Your task to perform on an android device: Clear the cart on amazon. Add "razer deathadder" to the cart on amazon Image 0: 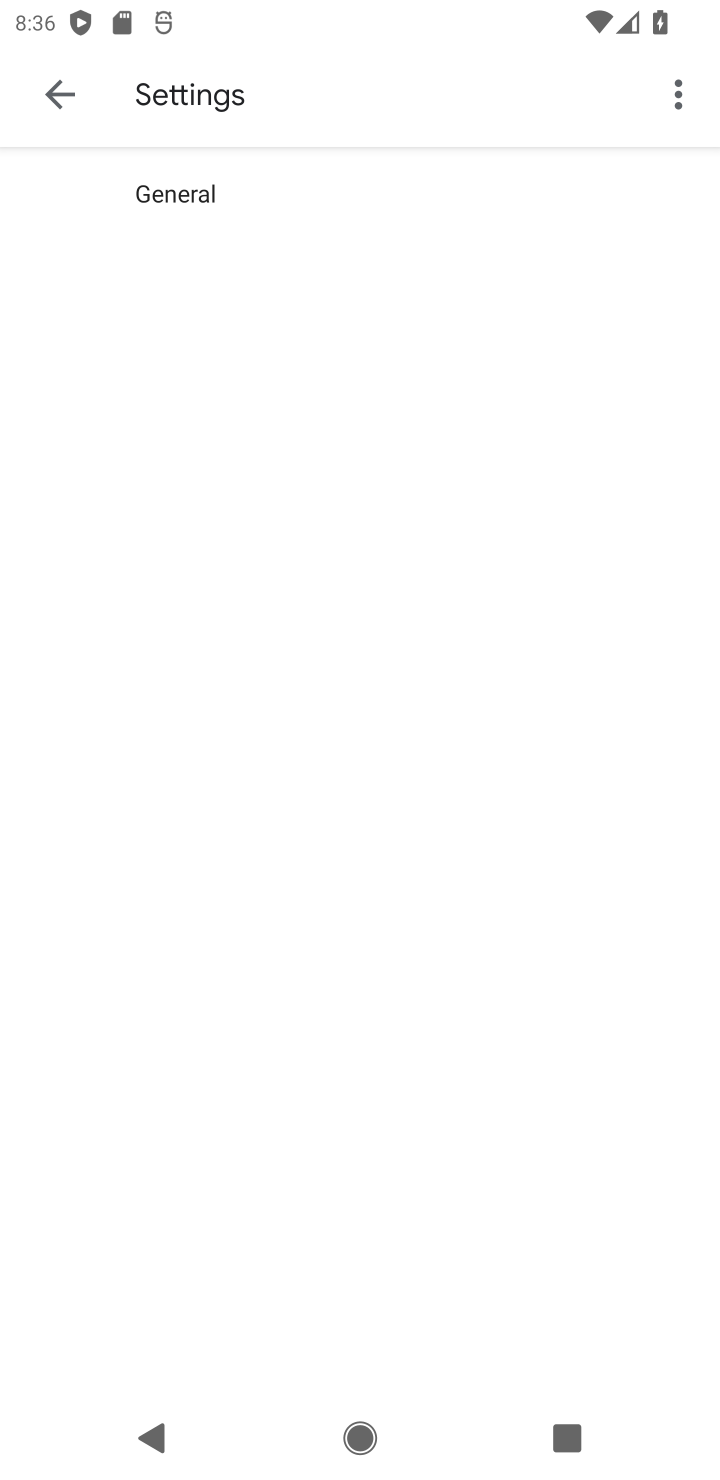
Step 0: press home button
Your task to perform on an android device: Clear the cart on amazon. Add "razer deathadder" to the cart on amazon Image 1: 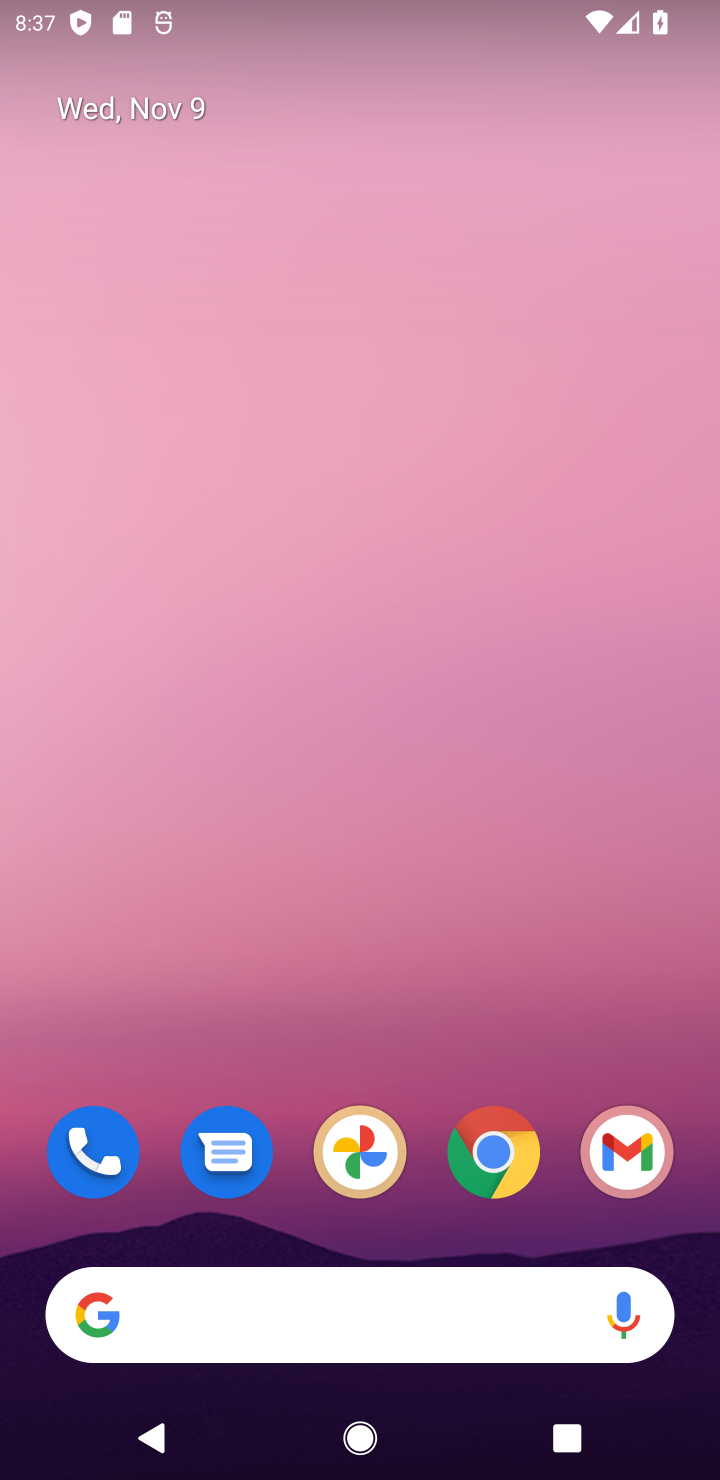
Step 1: click (509, 1143)
Your task to perform on an android device: Clear the cart on amazon. Add "razer deathadder" to the cart on amazon Image 2: 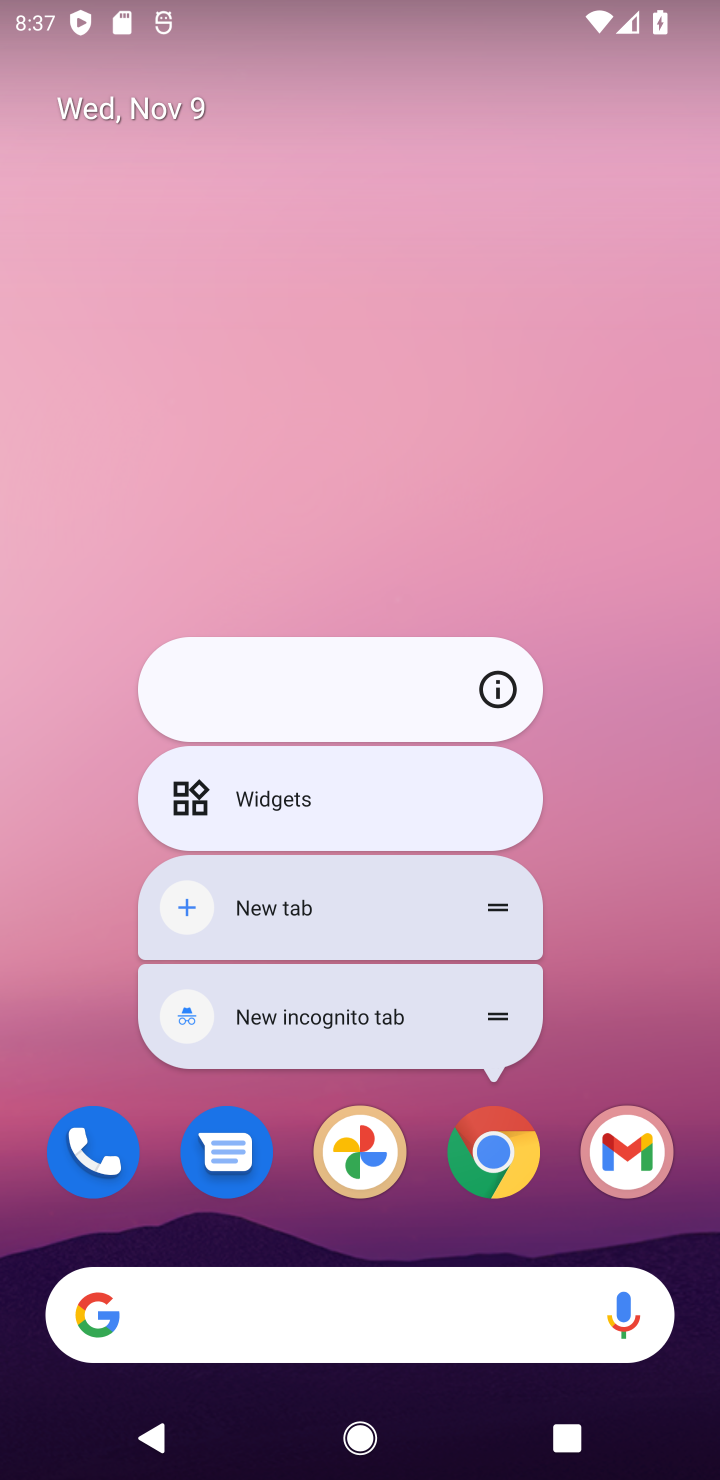
Step 2: click (498, 1145)
Your task to perform on an android device: Clear the cart on amazon. Add "razer deathadder" to the cart on amazon Image 3: 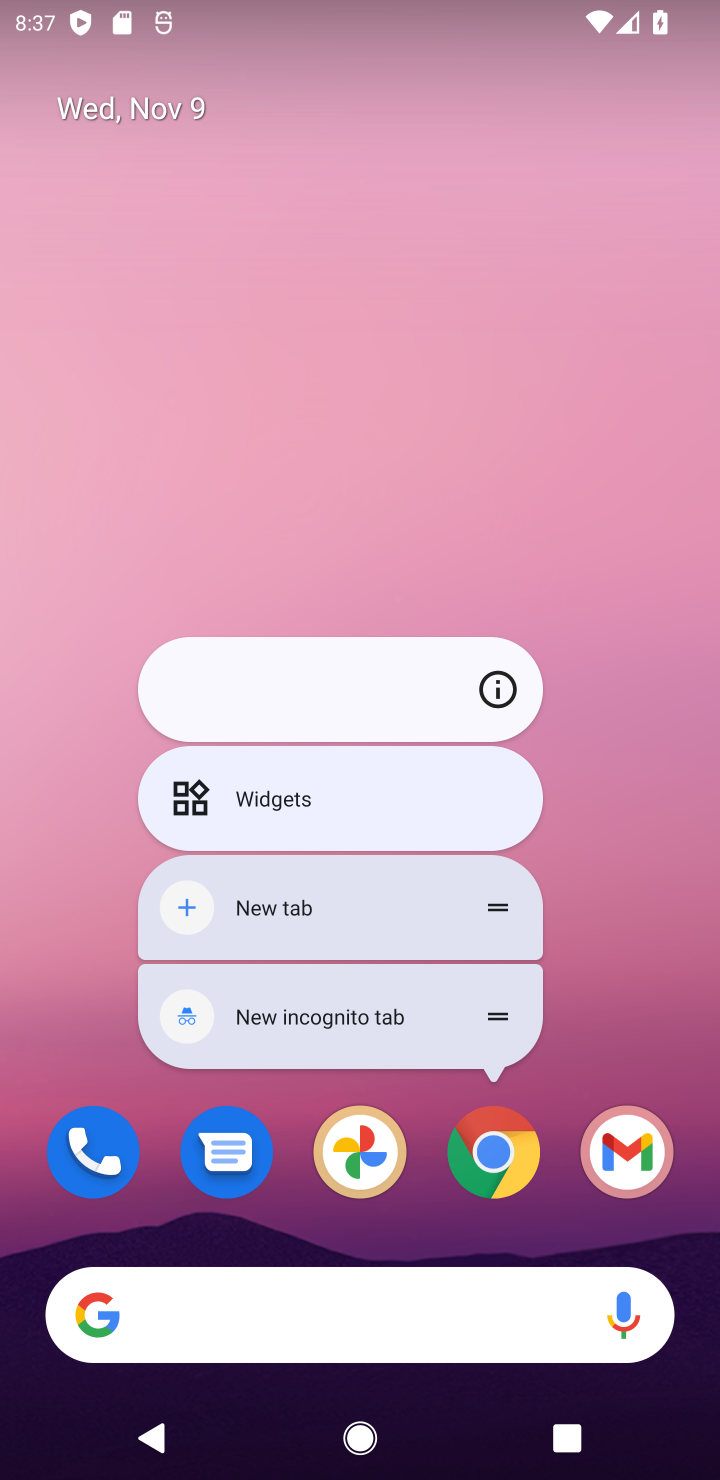
Step 3: click (498, 1147)
Your task to perform on an android device: Clear the cart on amazon. Add "razer deathadder" to the cart on amazon Image 4: 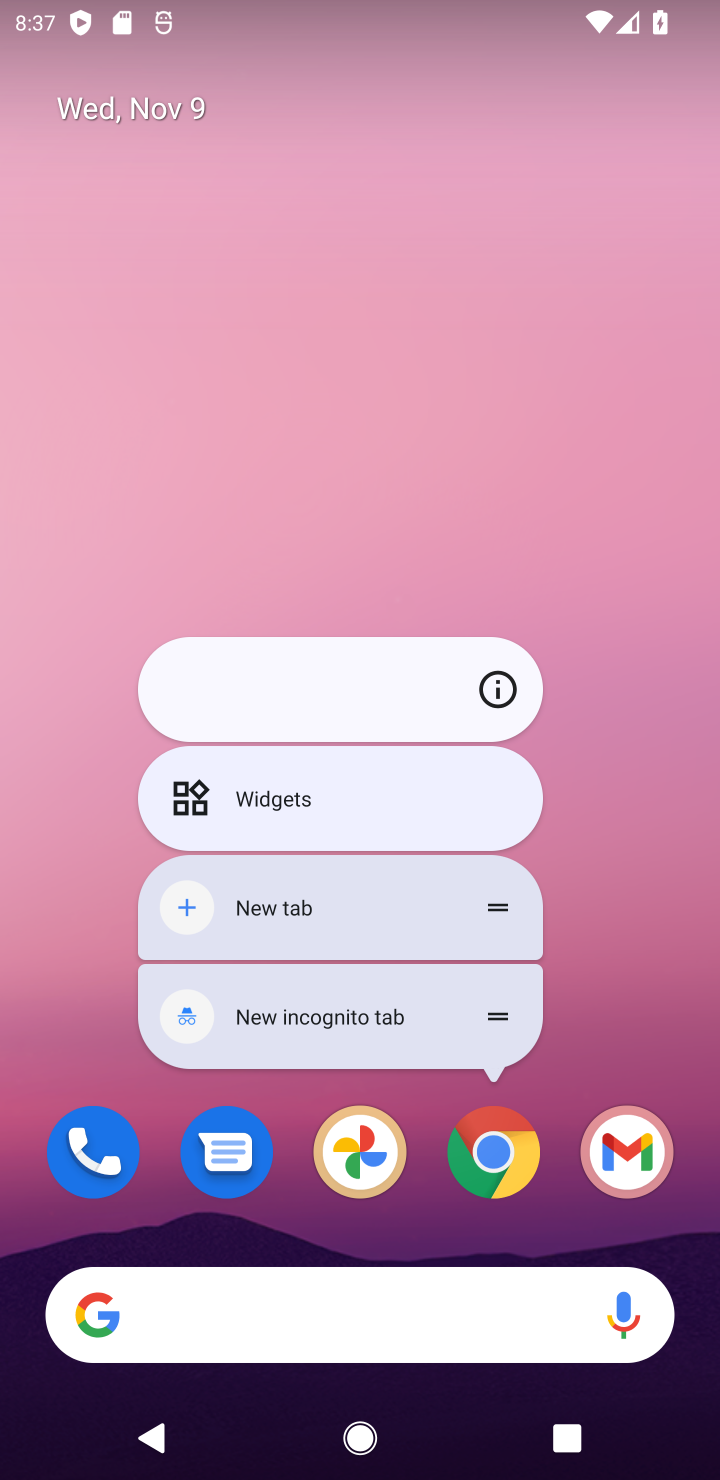
Step 4: click (494, 1146)
Your task to perform on an android device: Clear the cart on amazon. Add "razer deathadder" to the cart on amazon Image 5: 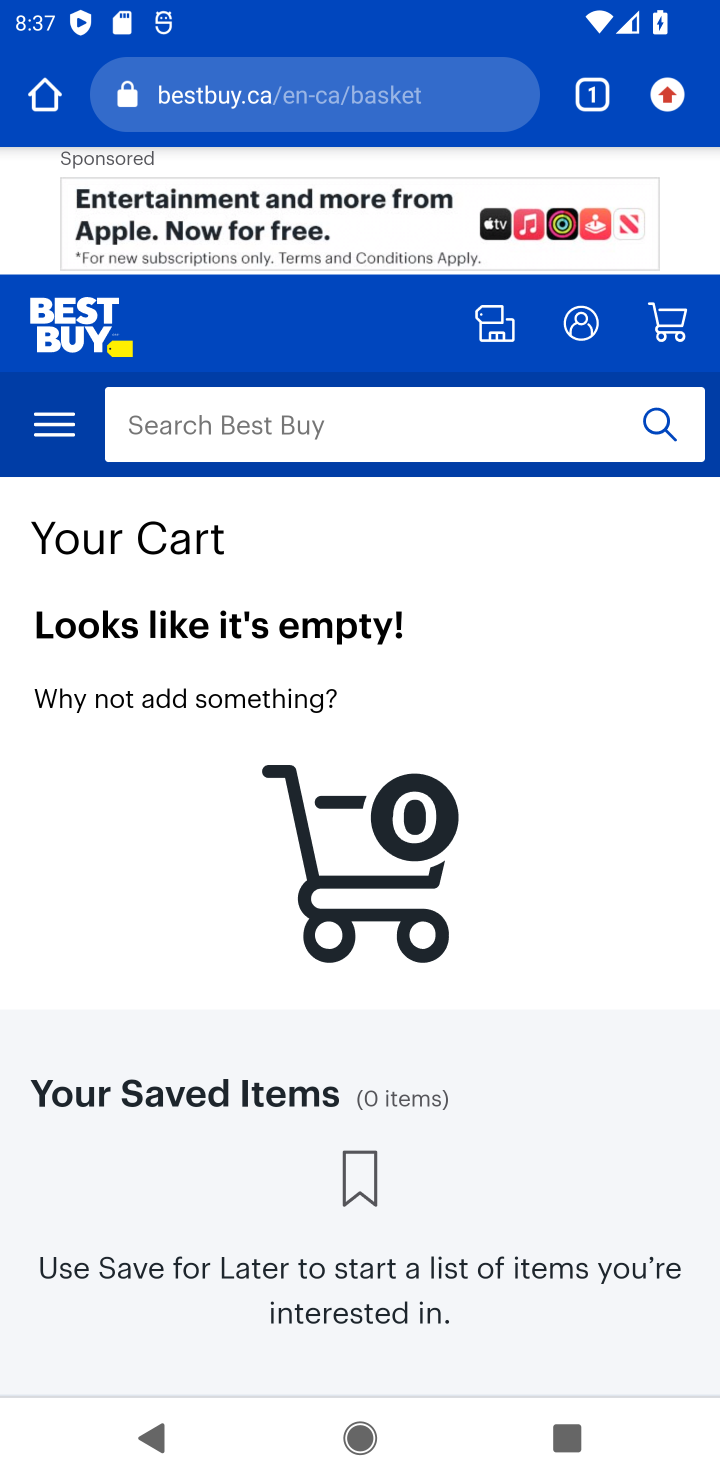
Step 5: click (294, 92)
Your task to perform on an android device: Clear the cart on amazon. Add "razer deathadder" to the cart on amazon Image 6: 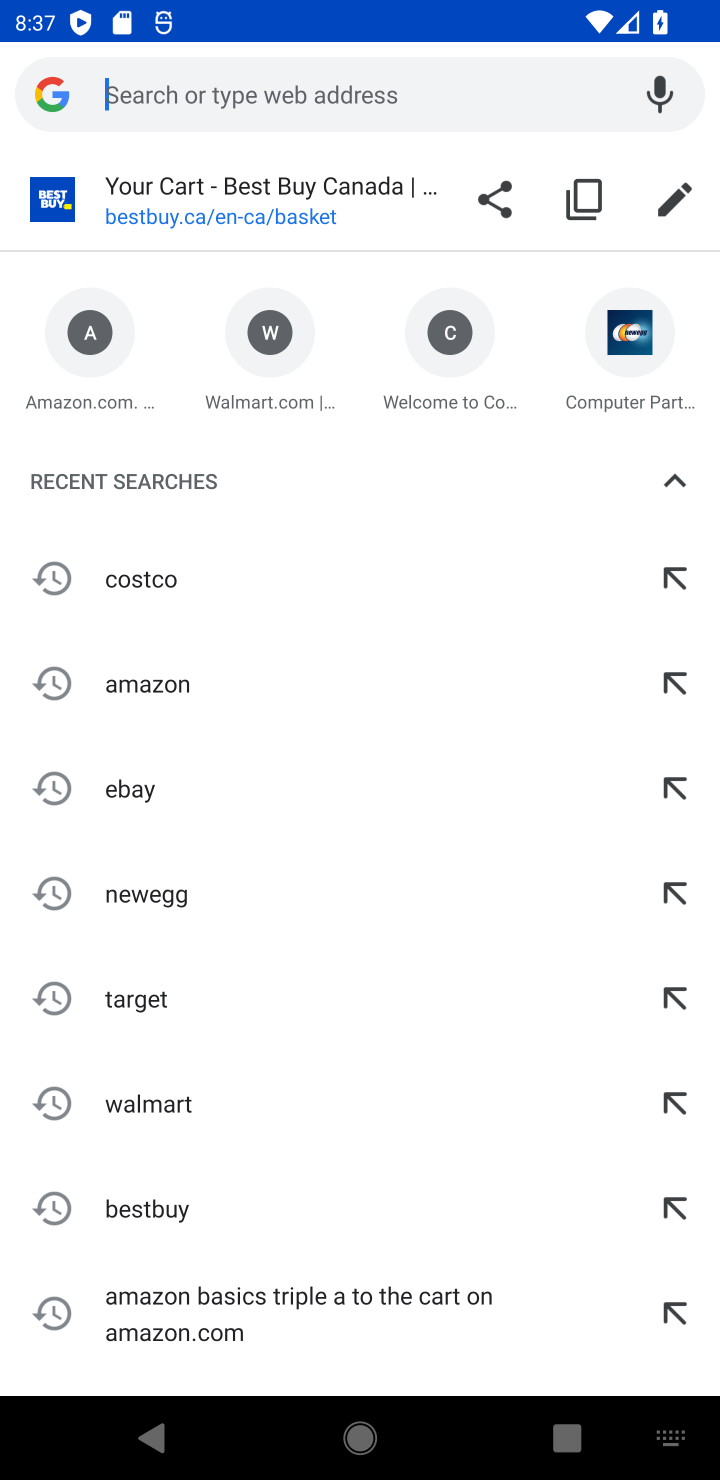
Step 6: type "amazon"
Your task to perform on an android device: Clear the cart on amazon. Add "razer deathadder" to the cart on amazon Image 7: 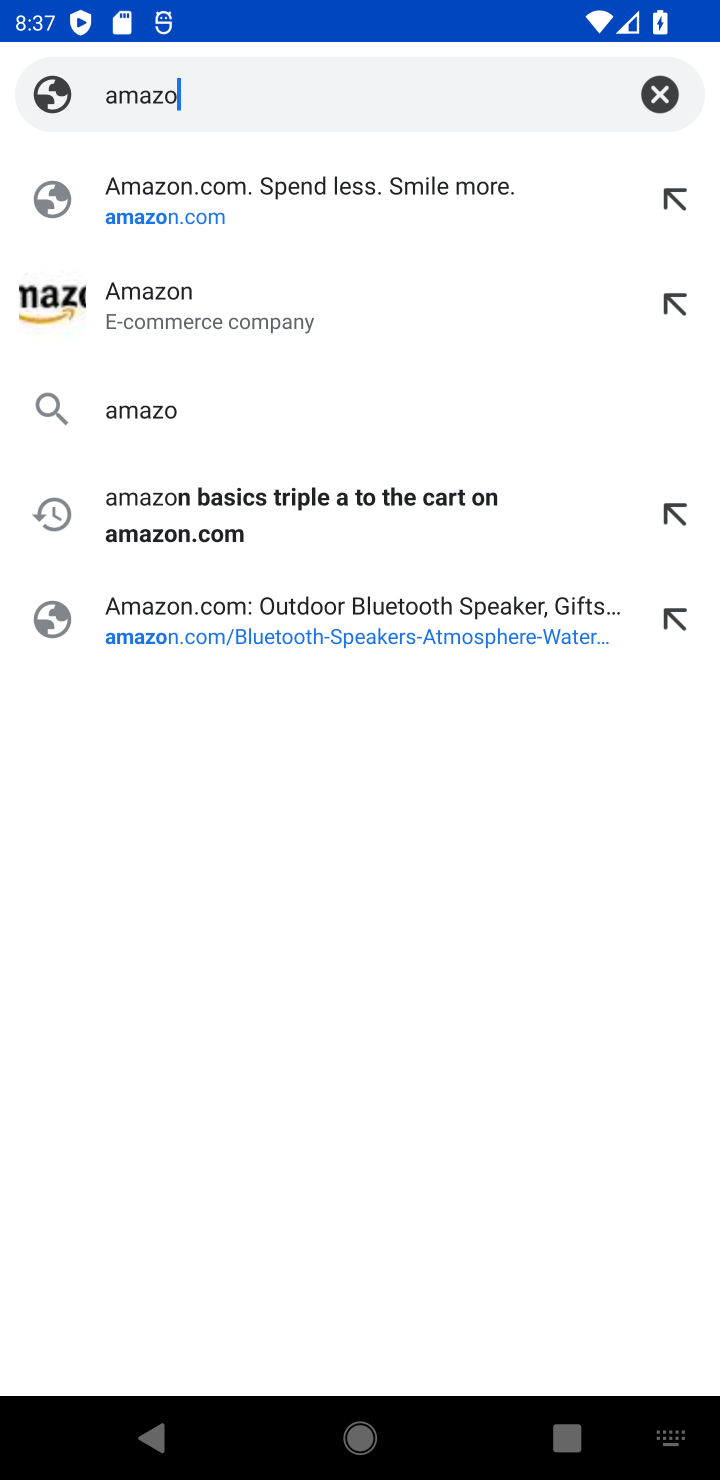
Step 7: press enter
Your task to perform on an android device: Clear the cart on amazon. Add "razer deathadder" to the cart on amazon Image 8: 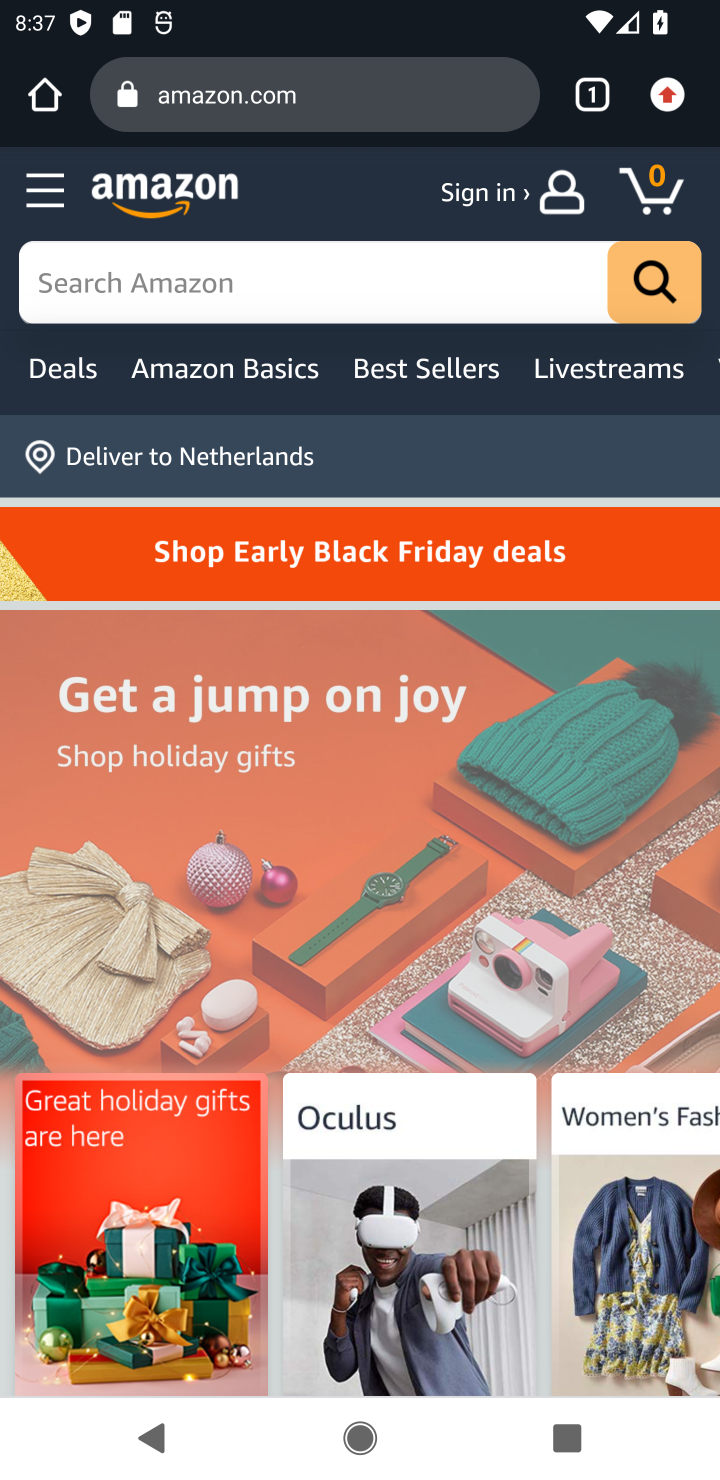
Step 8: click (215, 277)
Your task to perform on an android device: Clear the cart on amazon. Add "razer deathadder" to the cart on amazon Image 9: 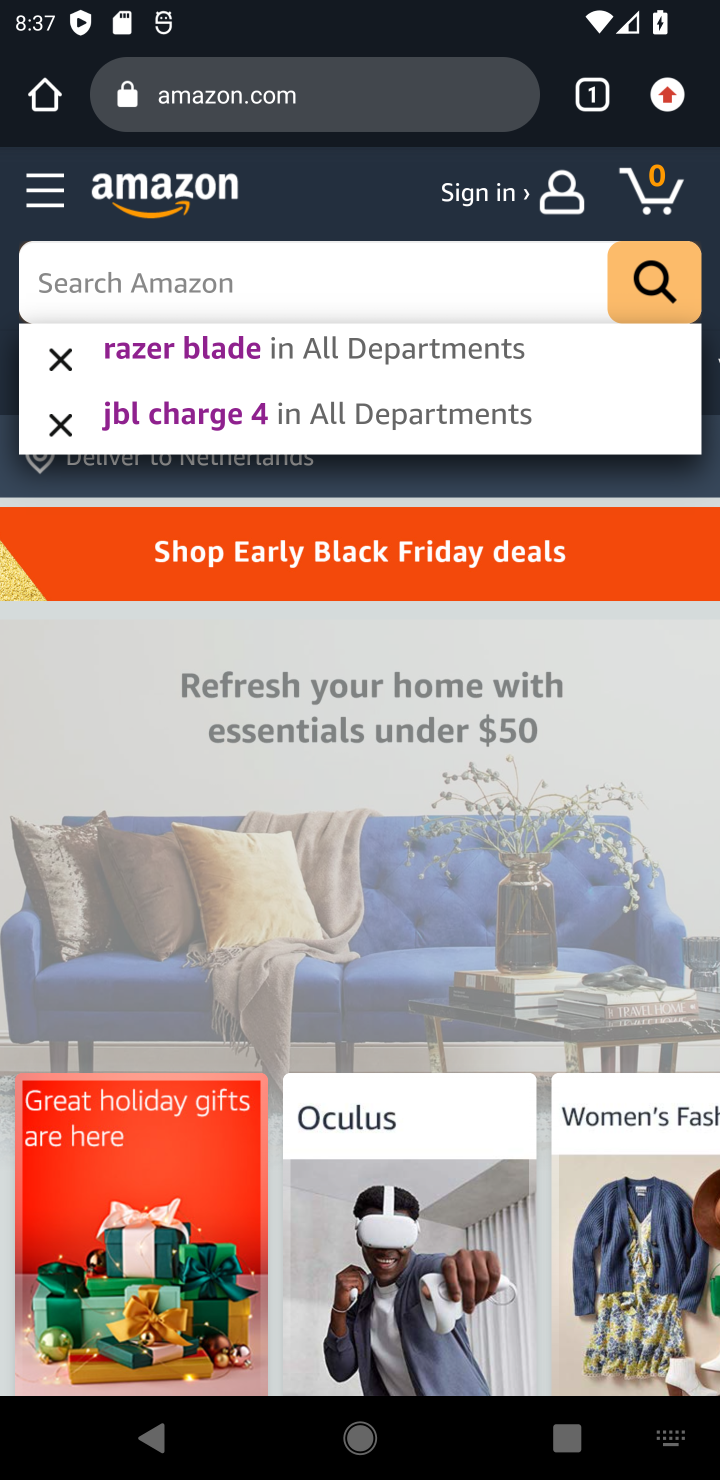
Step 9: click (90, 277)
Your task to perform on an android device: Clear the cart on amazon. Add "razer deathadder" to the cart on amazon Image 10: 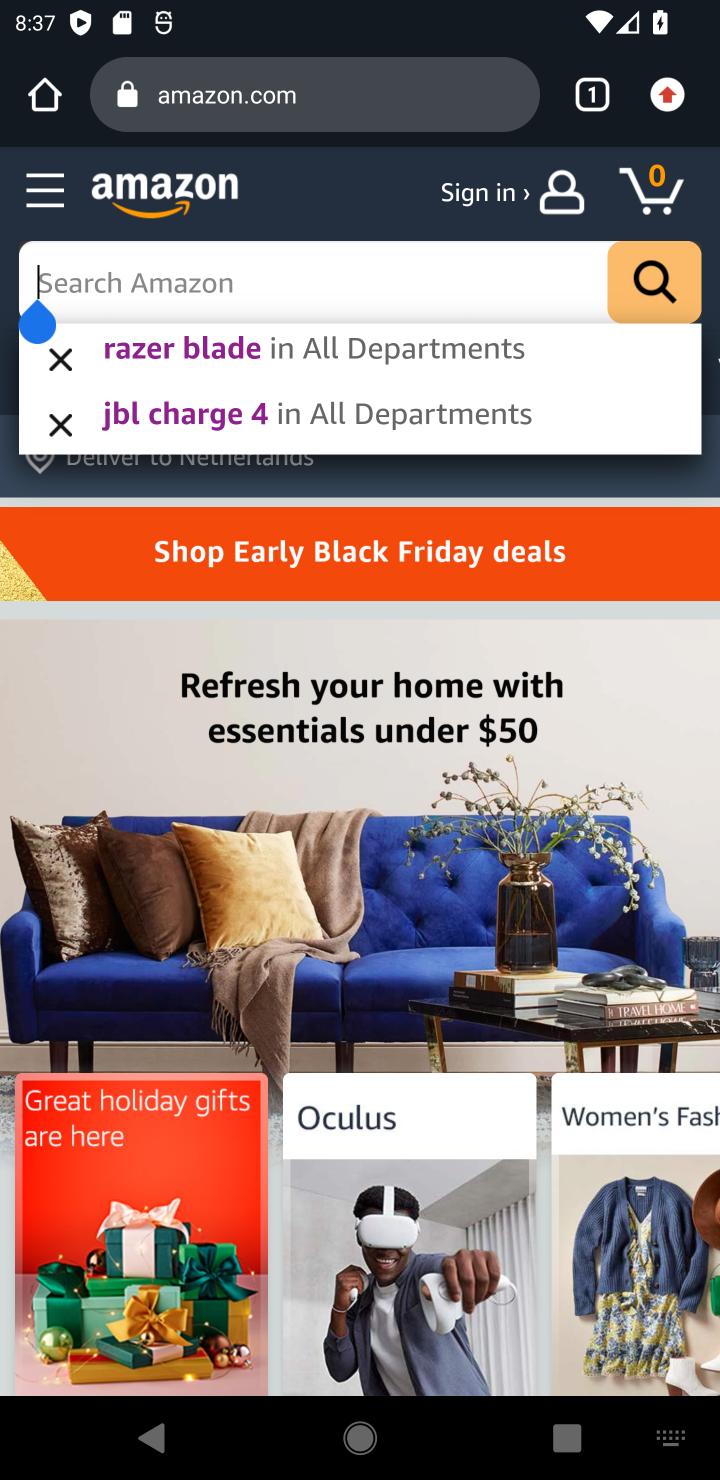
Step 10: click (90, 278)
Your task to perform on an android device: Clear the cart on amazon. Add "razer deathadder" to the cart on amazon Image 11: 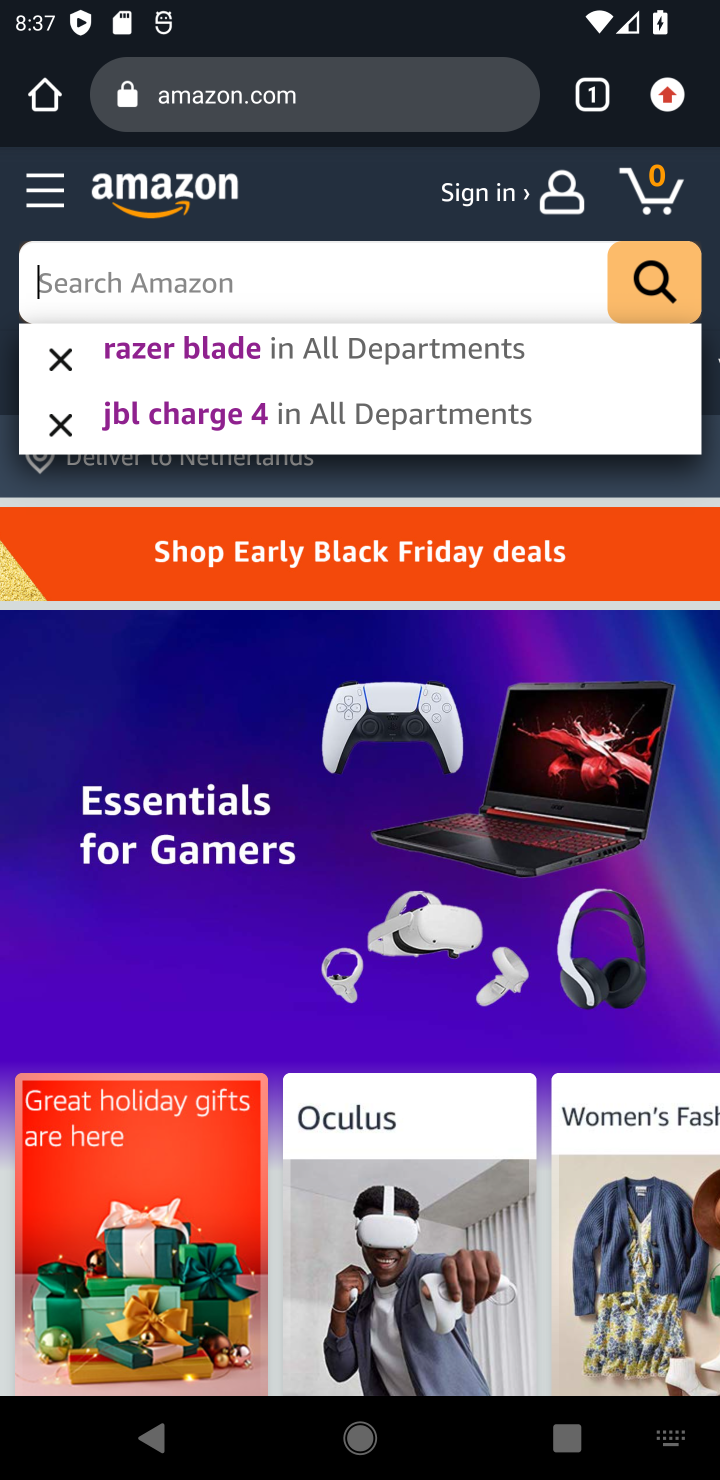
Step 11: press enter
Your task to perform on an android device: Clear the cart on amazon. Add "razer deathadder" to the cart on amazon Image 12: 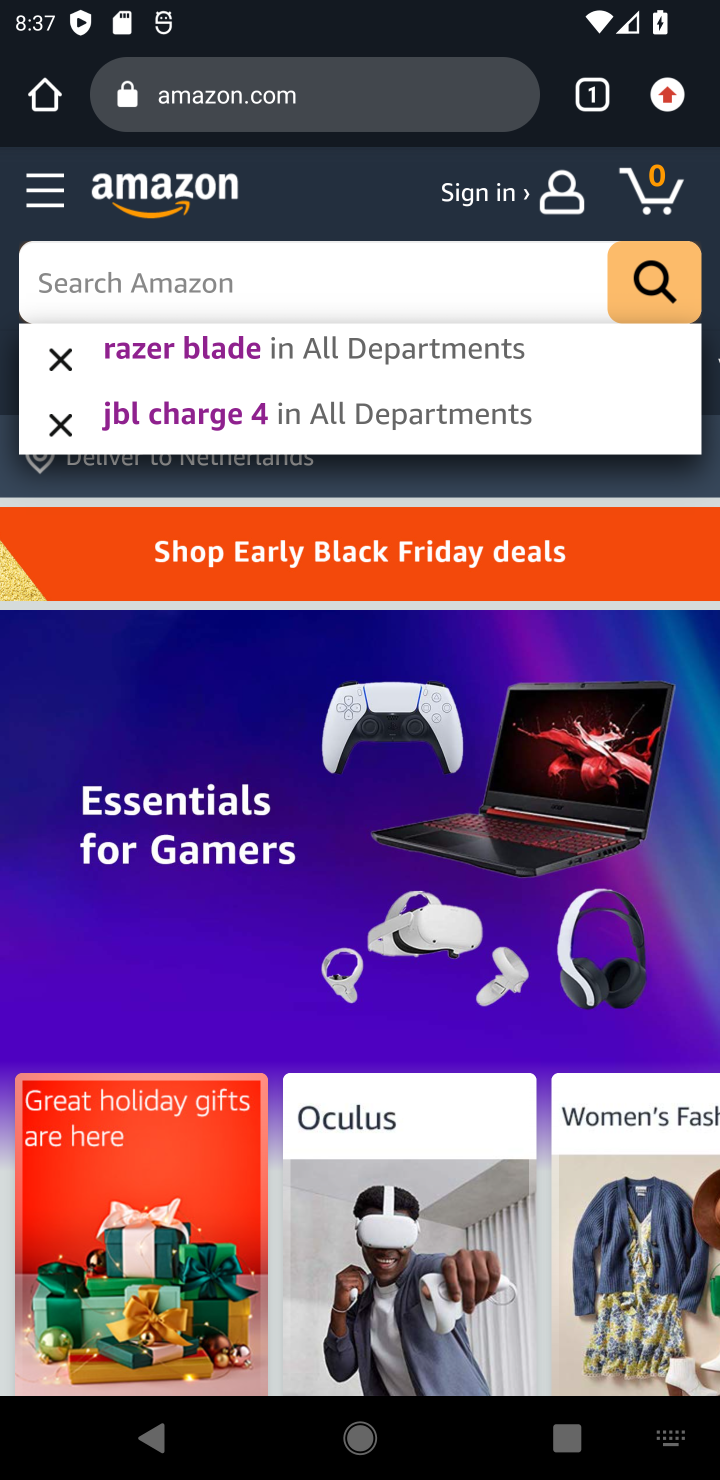
Step 12: type "razer deathadder"
Your task to perform on an android device: Clear the cart on amazon. Add "razer deathadder" to the cart on amazon Image 13: 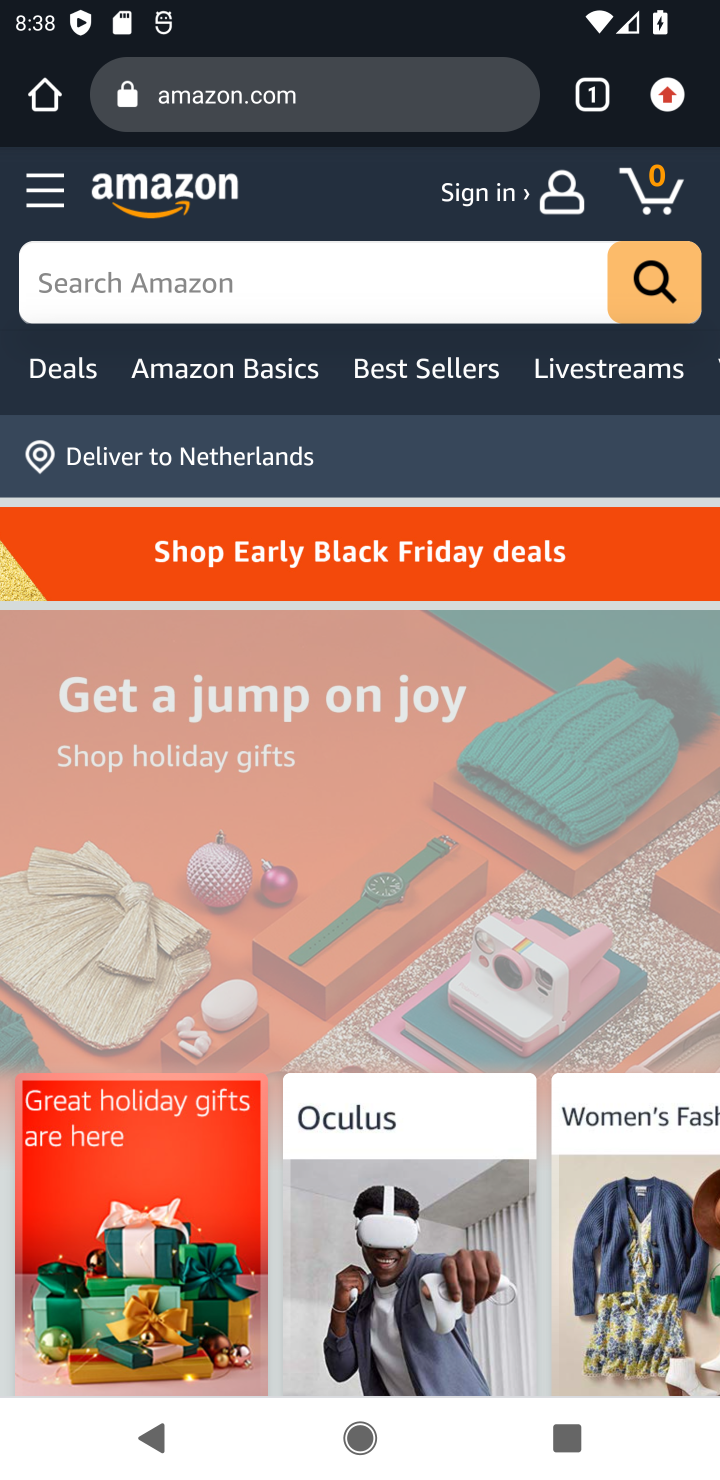
Step 13: click (286, 287)
Your task to perform on an android device: Clear the cart on amazon. Add "razer deathadder" to the cart on amazon Image 14: 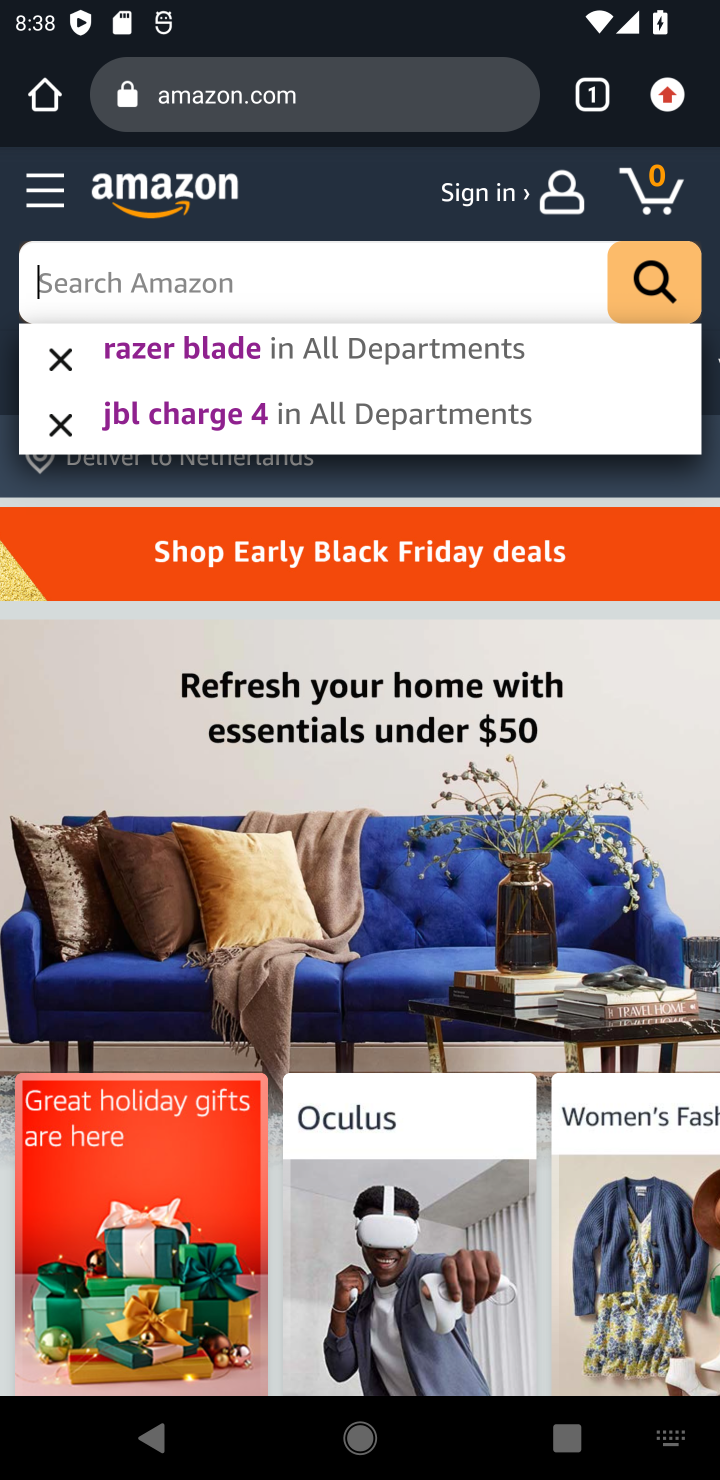
Step 14: type "razer deathadder"
Your task to perform on an android device: Clear the cart on amazon. Add "razer deathadder" to the cart on amazon Image 15: 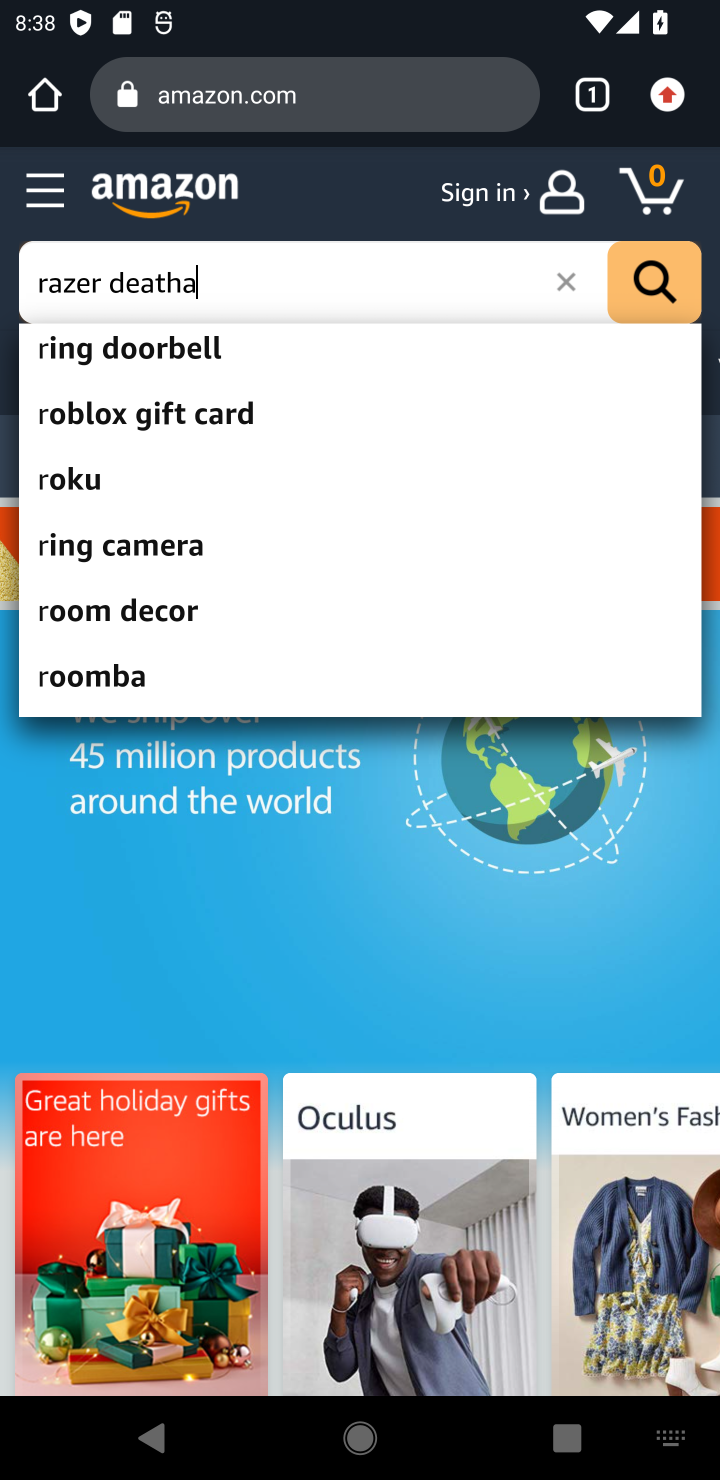
Step 15: press enter
Your task to perform on an android device: Clear the cart on amazon. Add "razer deathadder" to the cart on amazon Image 16: 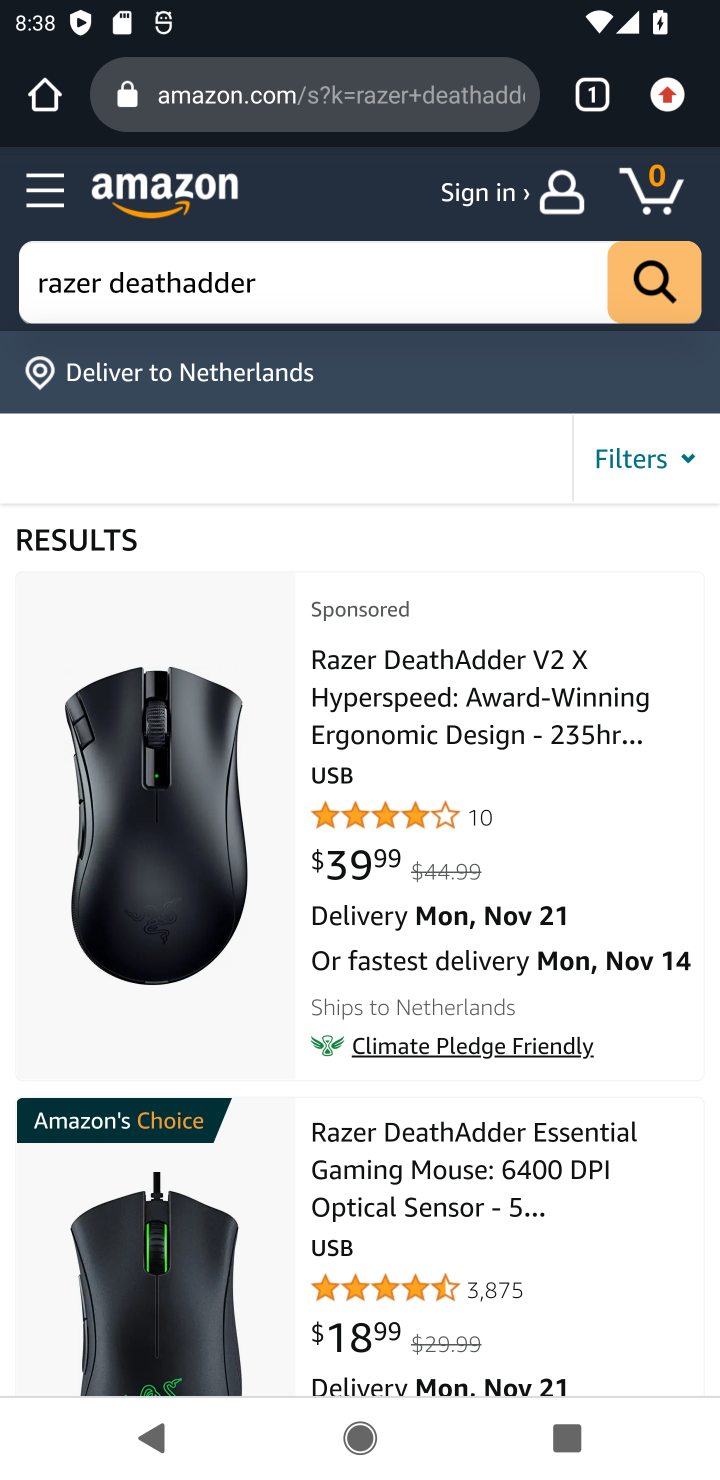
Step 16: click (454, 736)
Your task to perform on an android device: Clear the cart on amazon. Add "razer deathadder" to the cart on amazon Image 17: 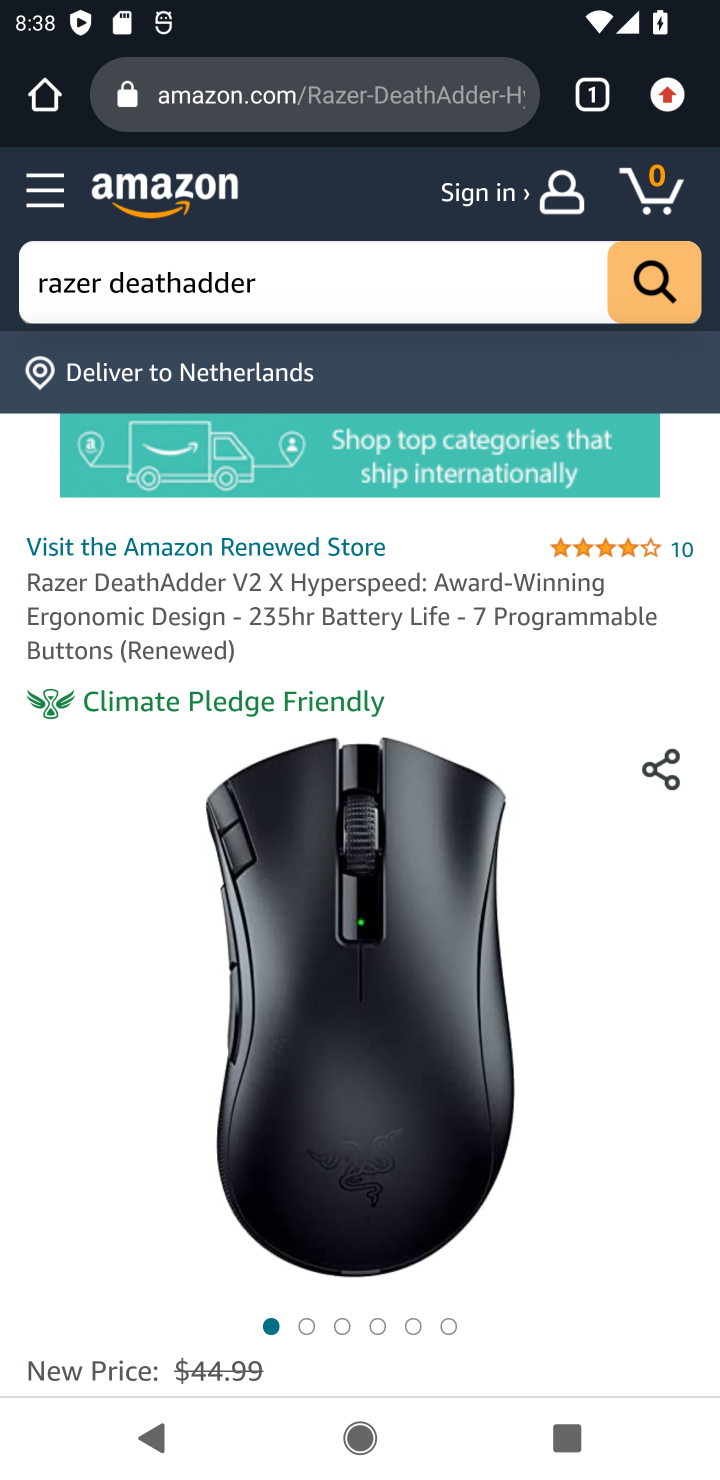
Step 17: drag from (119, 1209) to (524, 268)
Your task to perform on an android device: Clear the cart on amazon. Add "razer deathadder" to the cart on amazon Image 18: 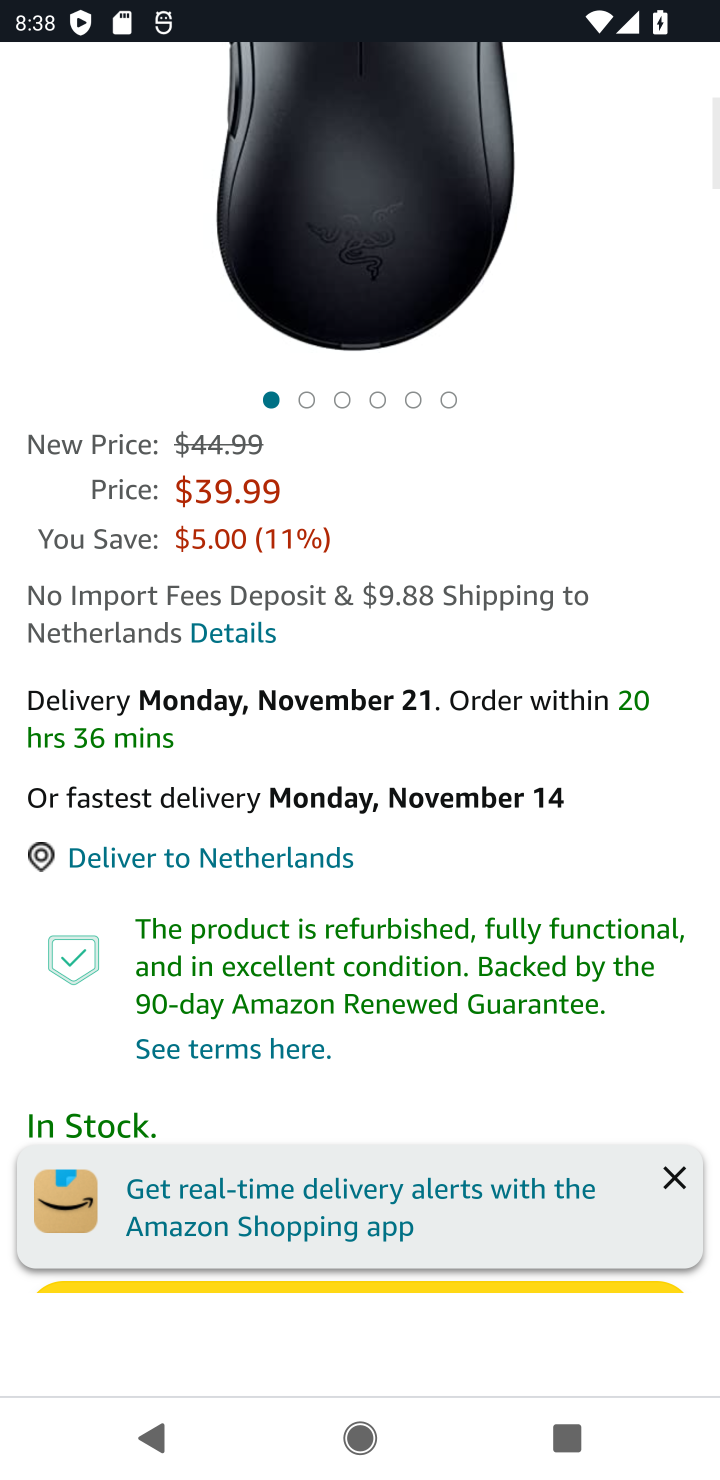
Step 18: drag from (347, 1246) to (496, 576)
Your task to perform on an android device: Clear the cart on amazon. Add "razer deathadder" to the cart on amazon Image 19: 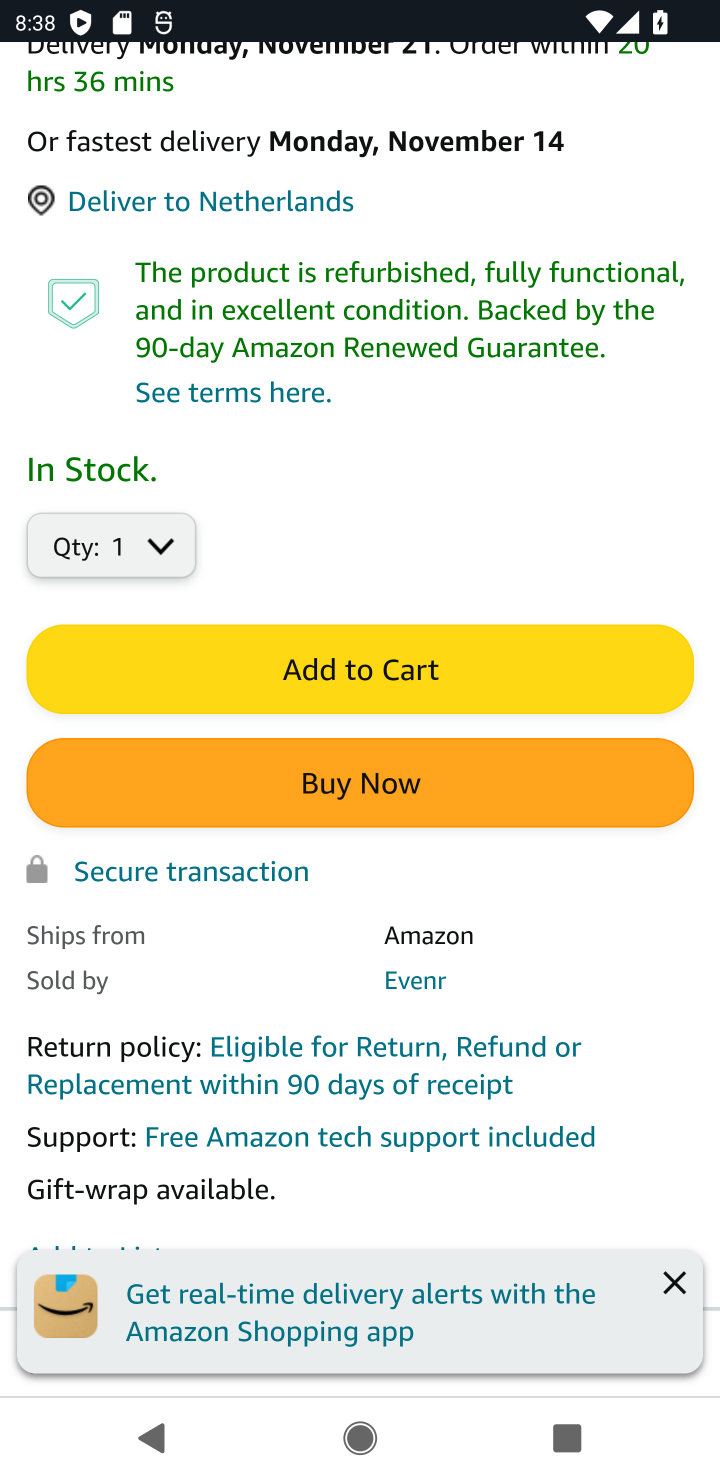
Step 19: click (373, 660)
Your task to perform on an android device: Clear the cart on amazon. Add "razer deathadder" to the cart on amazon Image 20: 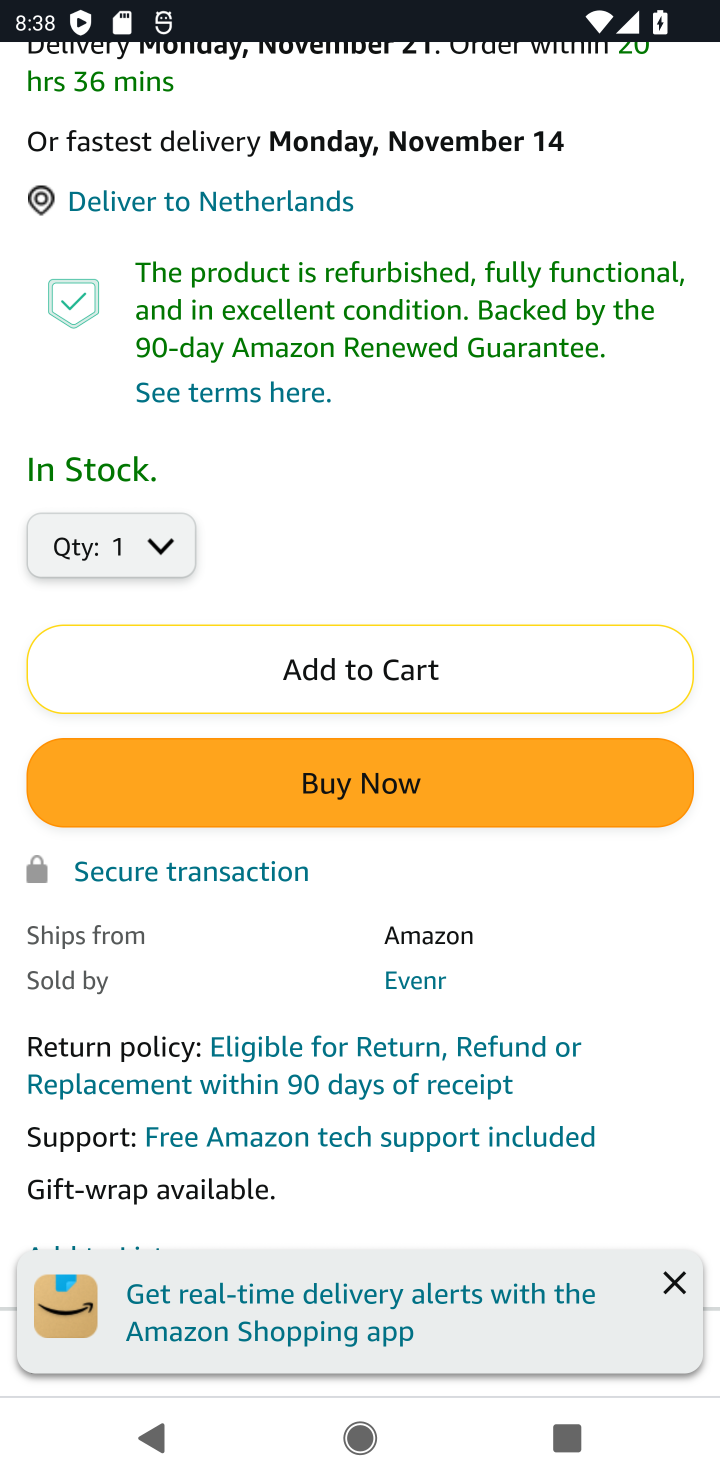
Step 20: click (356, 667)
Your task to perform on an android device: Clear the cart on amazon. Add "razer deathadder" to the cart on amazon Image 21: 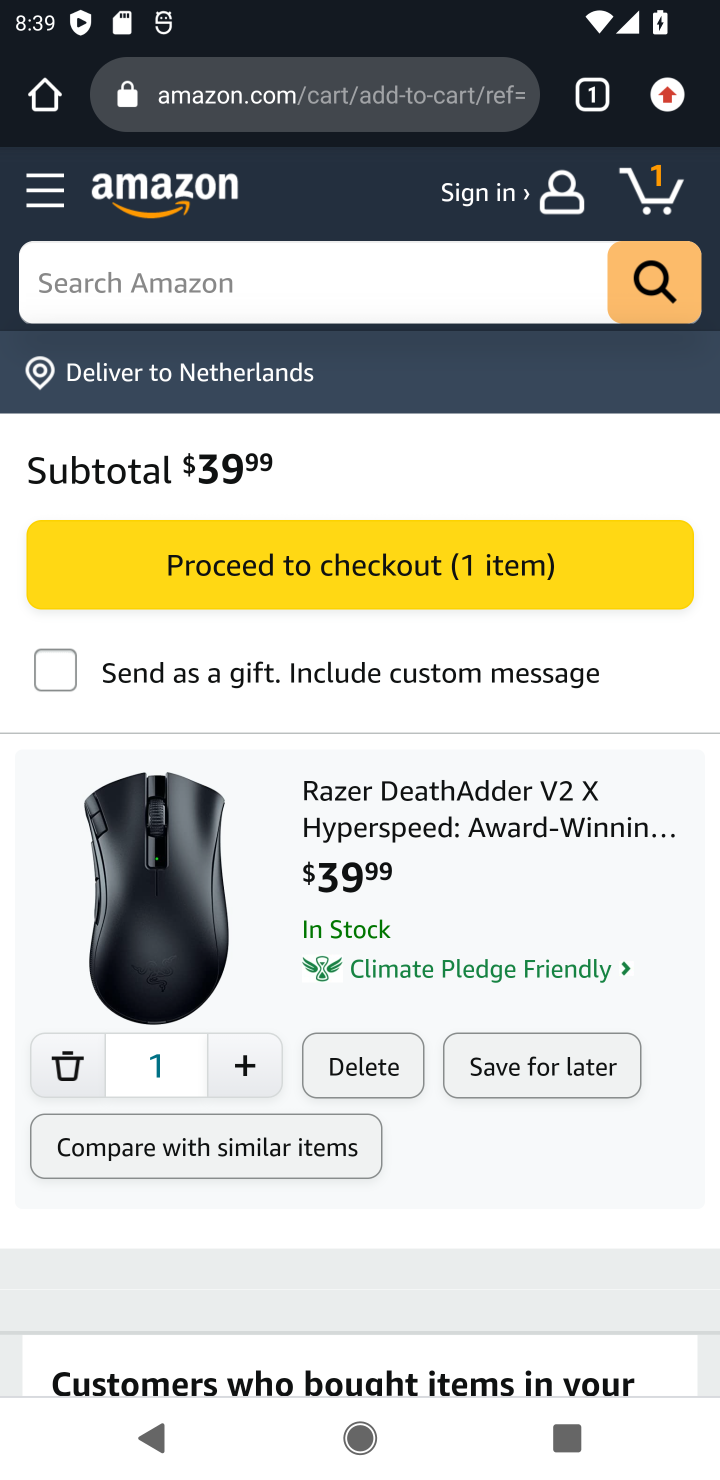
Step 21: task complete